Your task to perform on an android device: turn on sleep mode Image 0: 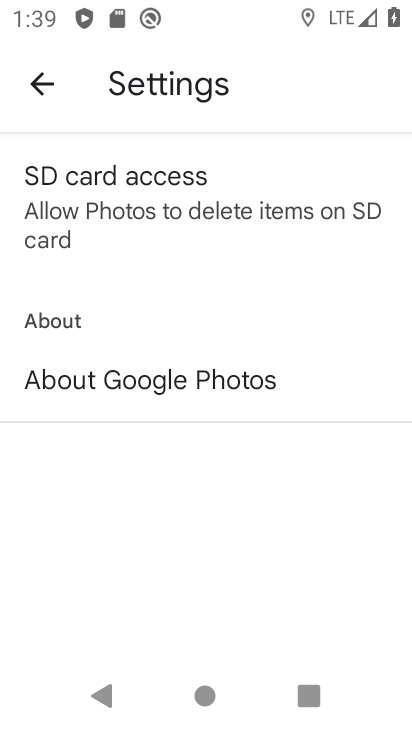
Step 0: press home button
Your task to perform on an android device: turn on sleep mode Image 1: 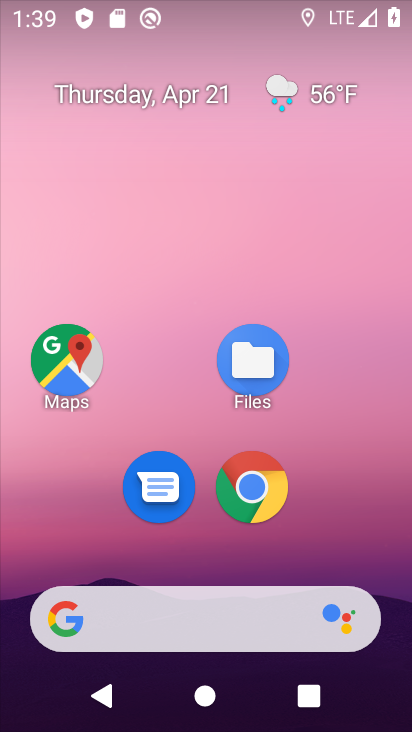
Step 1: drag from (385, 520) to (356, 52)
Your task to perform on an android device: turn on sleep mode Image 2: 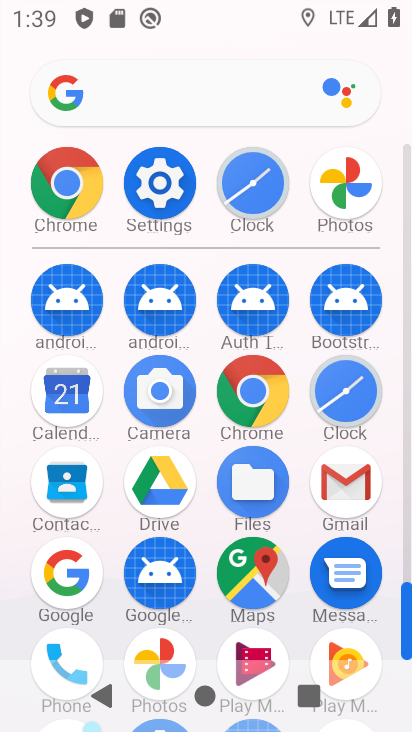
Step 2: click (159, 194)
Your task to perform on an android device: turn on sleep mode Image 3: 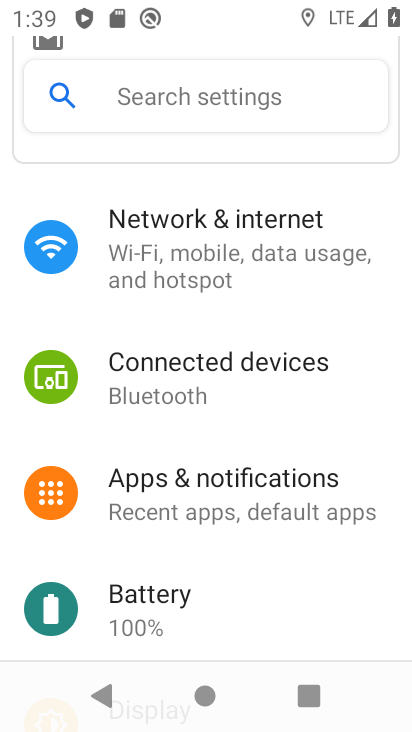
Step 3: click (183, 104)
Your task to perform on an android device: turn on sleep mode Image 4: 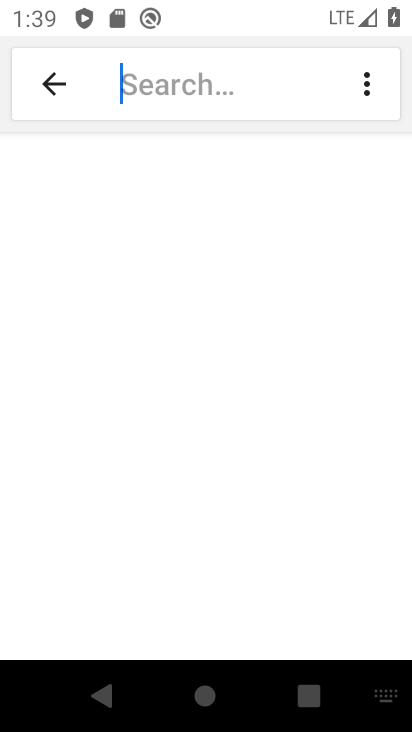
Step 4: type "sleep mode"
Your task to perform on an android device: turn on sleep mode Image 5: 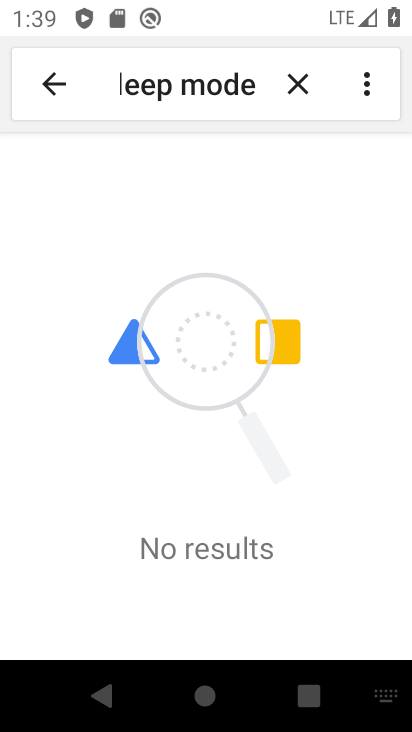
Step 5: task complete